Your task to perform on an android device: visit the assistant section in the google photos Image 0: 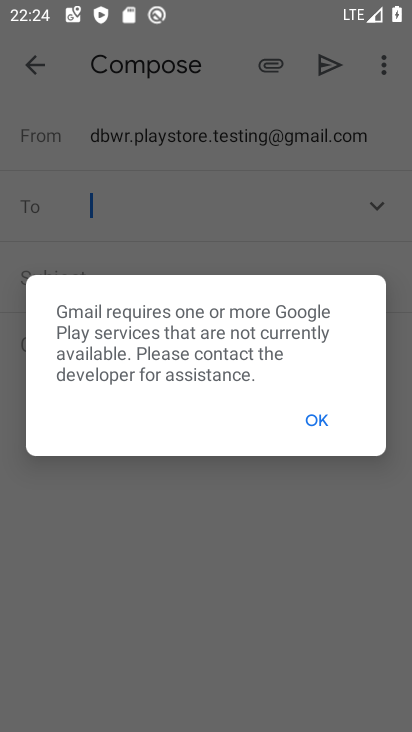
Step 0: press home button
Your task to perform on an android device: visit the assistant section in the google photos Image 1: 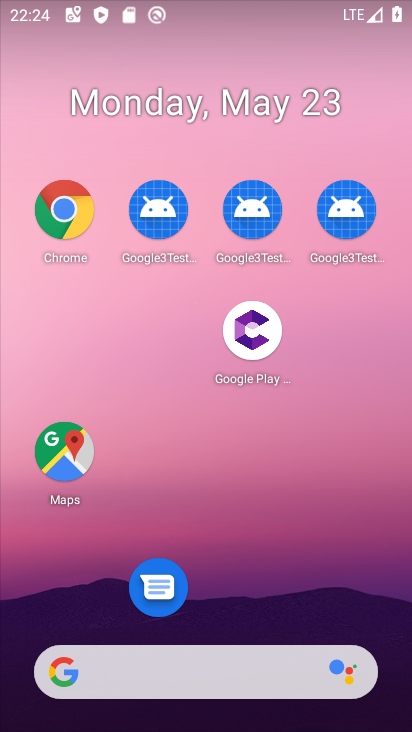
Step 1: drag from (252, 578) to (259, 78)
Your task to perform on an android device: visit the assistant section in the google photos Image 2: 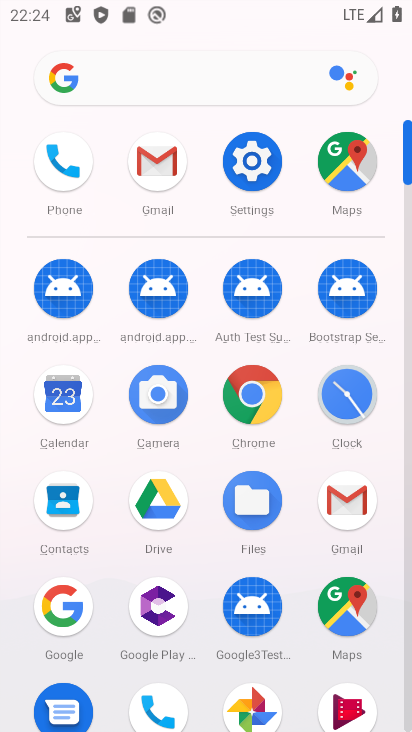
Step 2: drag from (182, 577) to (166, 205)
Your task to perform on an android device: visit the assistant section in the google photos Image 3: 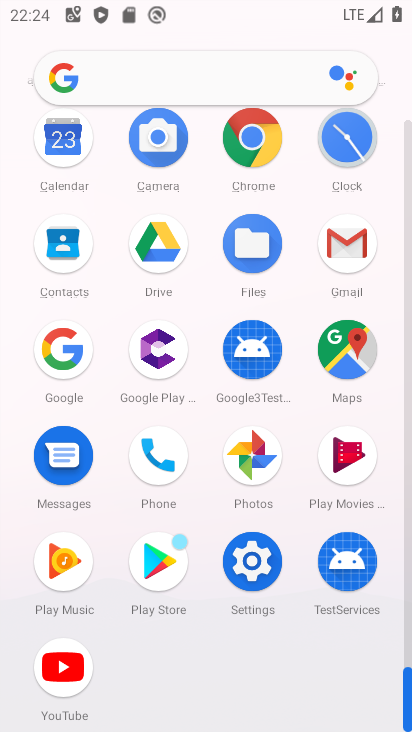
Step 3: click (252, 452)
Your task to perform on an android device: visit the assistant section in the google photos Image 4: 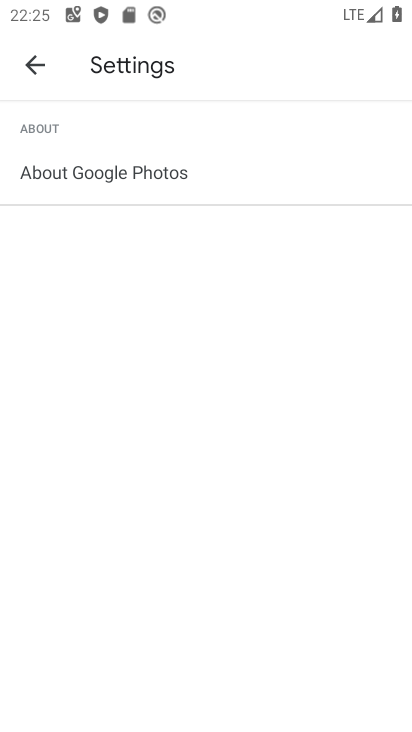
Step 4: task complete